Your task to perform on an android device: toggle notifications settings in the gmail app Image 0: 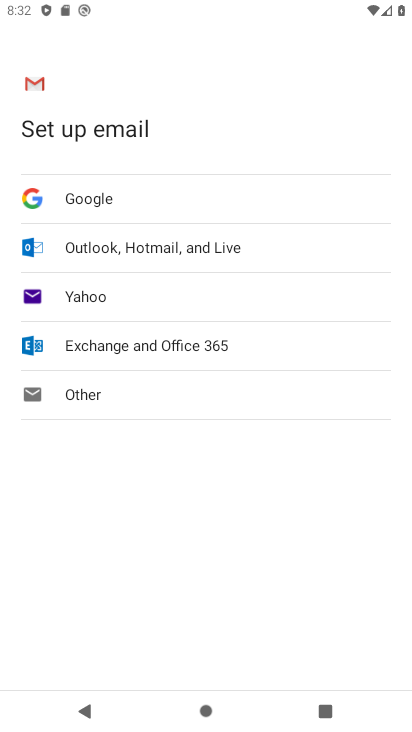
Step 0: press back button
Your task to perform on an android device: toggle notifications settings in the gmail app Image 1: 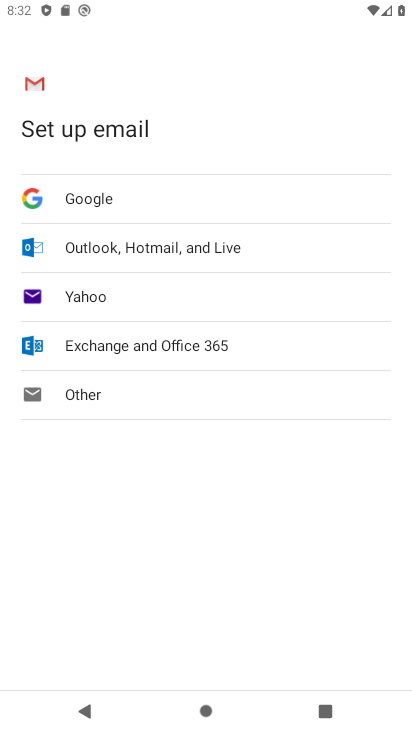
Step 1: press back button
Your task to perform on an android device: toggle notifications settings in the gmail app Image 2: 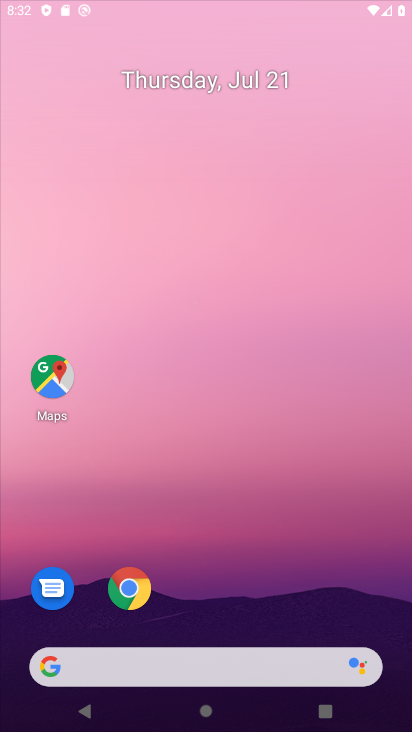
Step 2: press back button
Your task to perform on an android device: toggle notifications settings in the gmail app Image 3: 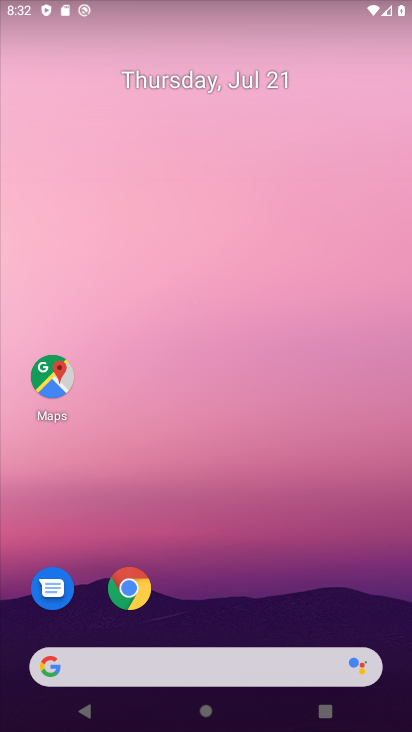
Step 3: drag from (210, 629) to (131, 185)
Your task to perform on an android device: toggle notifications settings in the gmail app Image 4: 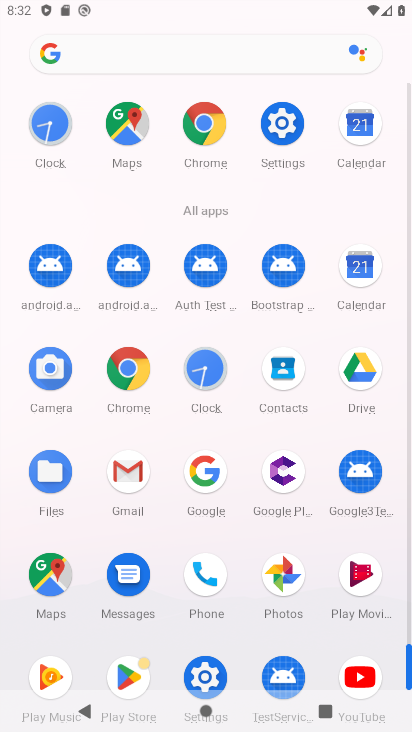
Step 4: click (132, 475)
Your task to perform on an android device: toggle notifications settings in the gmail app Image 5: 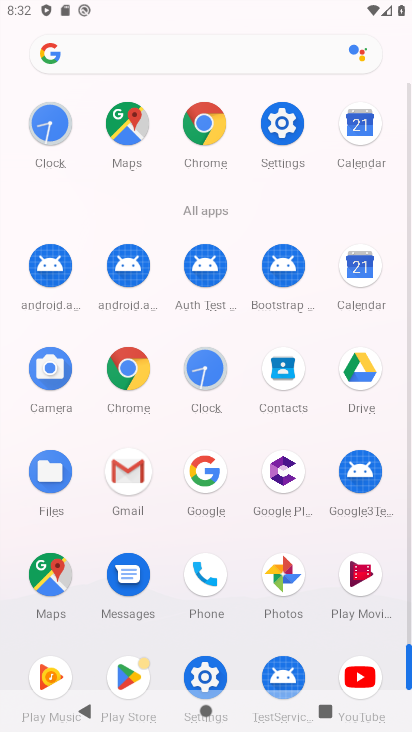
Step 5: click (128, 463)
Your task to perform on an android device: toggle notifications settings in the gmail app Image 6: 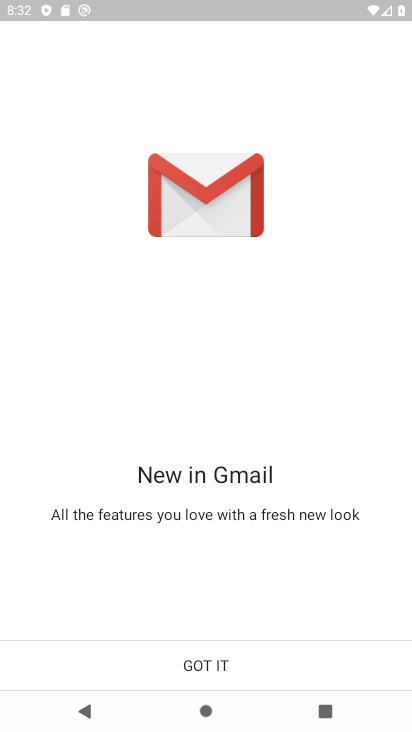
Step 6: click (219, 663)
Your task to perform on an android device: toggle notifications settings in the gmail app Image 7: 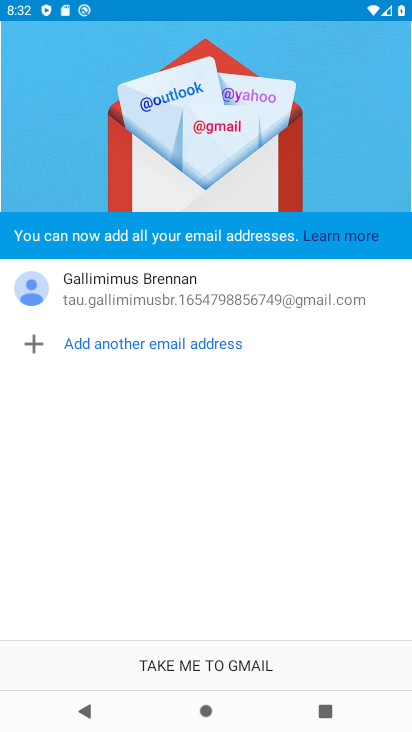
Step 7: click (229, 665)
Your task to perform on an android device: toggle notifications settings in the gmail app Image 8: 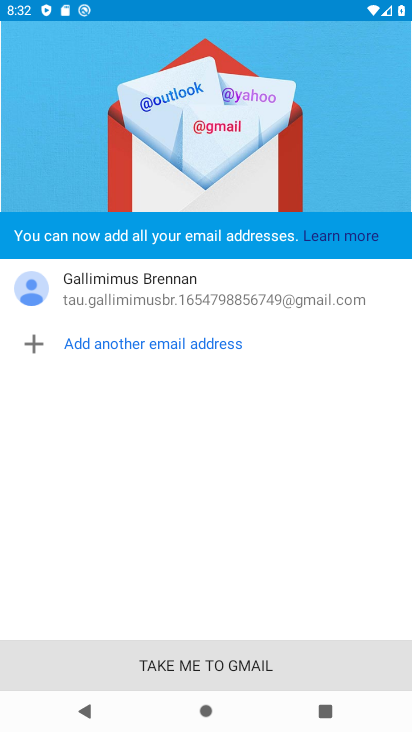
Step 8: click (229, 666)
Your task to perform on an android device: toggle notifications settings in the gmail app Image 9: 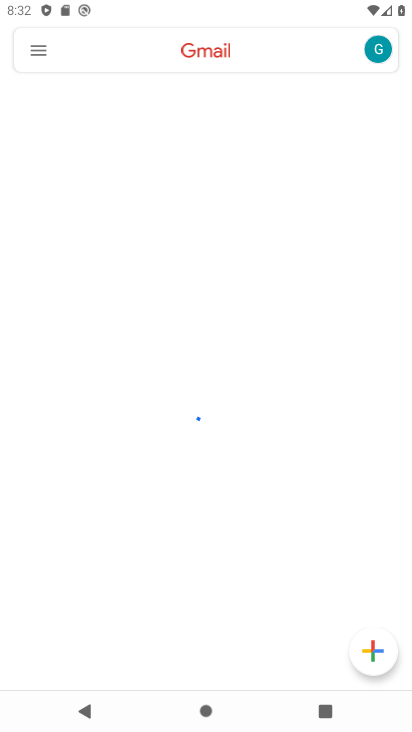
Step 9: drag from (37, 49) to (88, 404)
Your task to perform on an android device: toggle notifications settings in the gmail app Image 10: 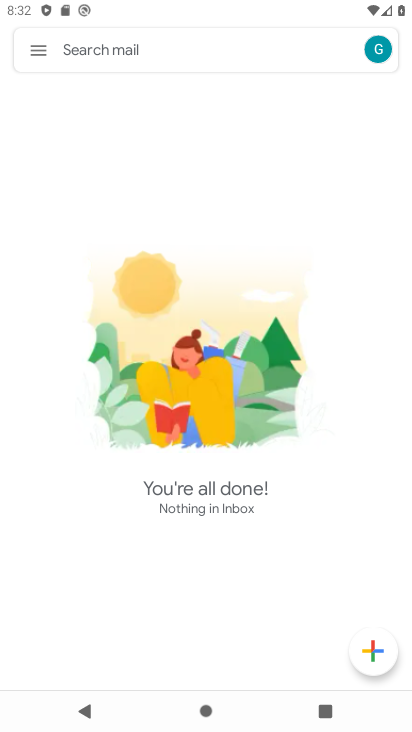
Step 10: click (47, 60)
Your task to perform on an android device: toggle notifications settings in the gmail app Image 11: 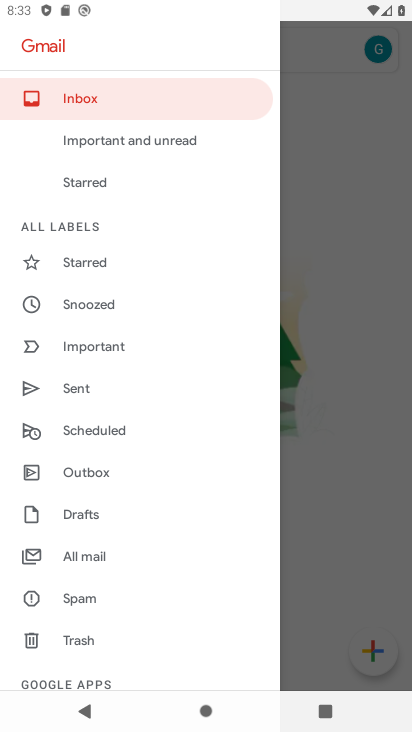
Step 11: drag from (104, 622) to (100, 123)
Your task to perform on an android device: toggle notifications settings in the gmail app Image 12: 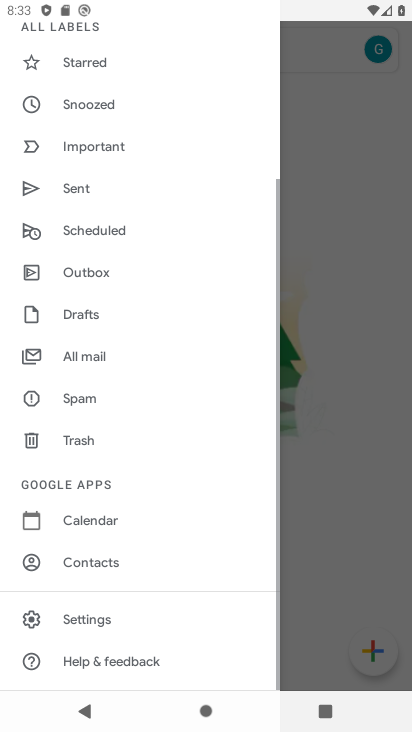
Step 12: drag from (130, 429) to (162, 156)
Your task to perform on an android device: toggle notifications settings in the gmail app Image 13: 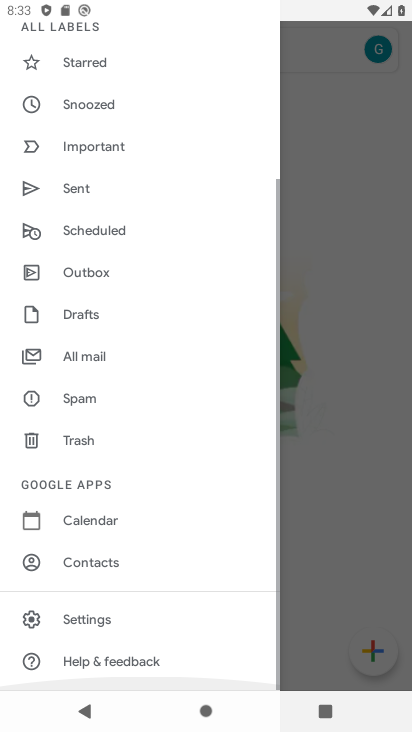
Step 13: drag from (146, 570) to (87, 203)
Your task to perform on an android device: toggle notifications settings in the gmail app Image 14: 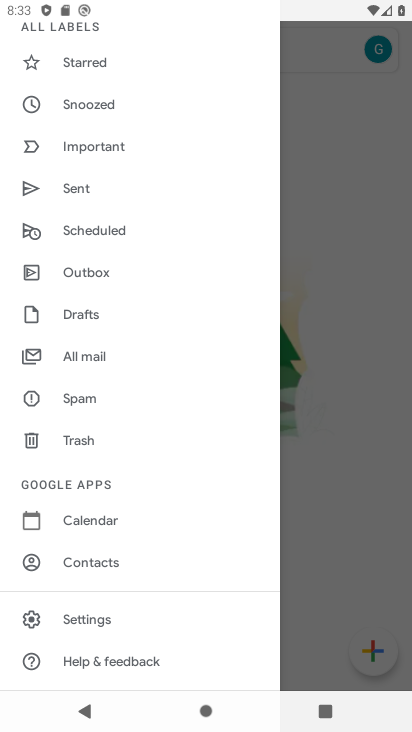
Step 14: click (69, 612)
Your task to perform on an android device: toggle notifications settings in the gmail app Image 15: 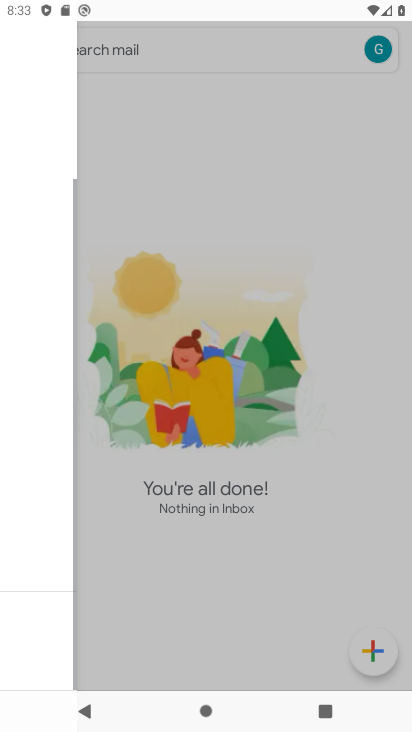
Step 15: click (73, 609)
Your task to perform on an android device: toggle notifications settings in the gmail app Image 16: 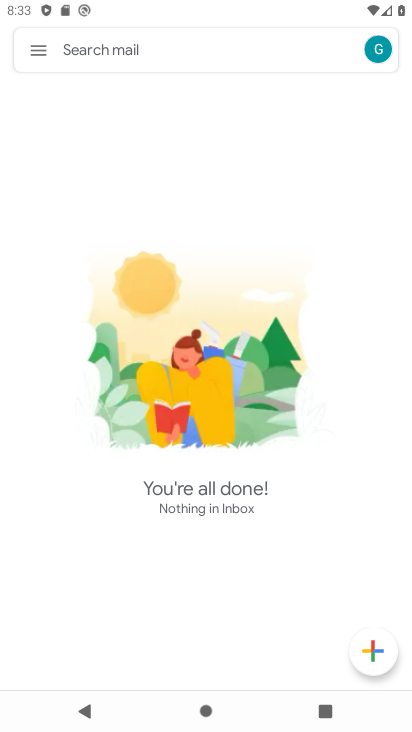
Step 16: click (73, 609)
Your task to perform on an android device: toggle notifications settings in the gmail app Image 17: 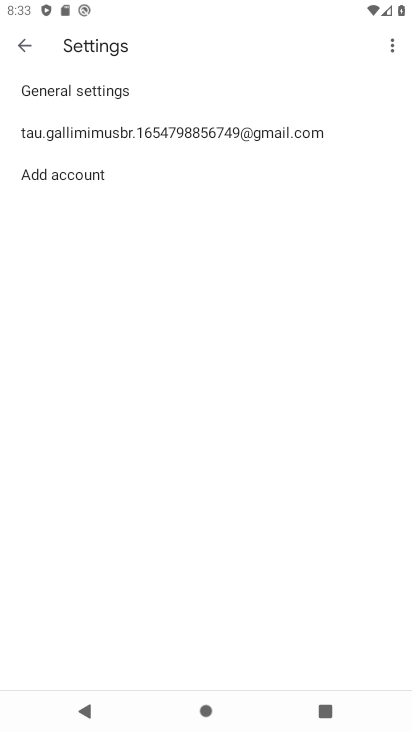
Step 17: click (123, 139)
Your task to perform on an android device: toggle notifications settings in the gmail app Image 18: 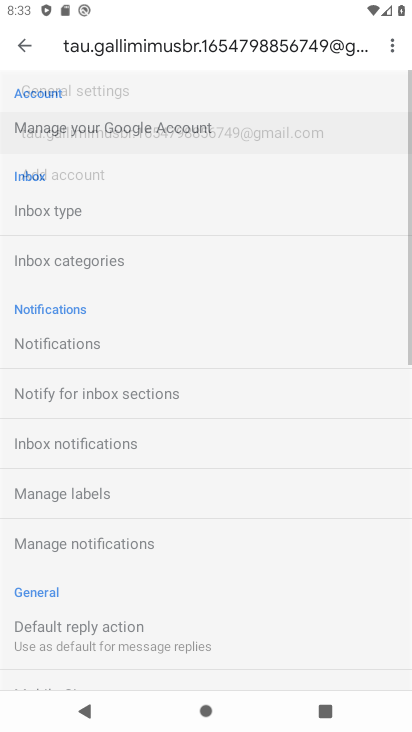
Step 18: click (123, 137)
Your task to perform on an android device: toggle notifications settings in the gmail app Image 19: 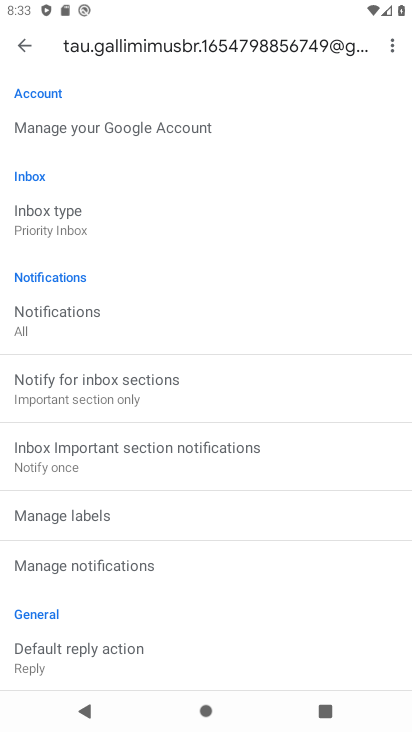
Step 19: drag from (90, 504) to (87, 120)
Your task to perform on an android device: toggle notifications settings in the gmail app Image 20: 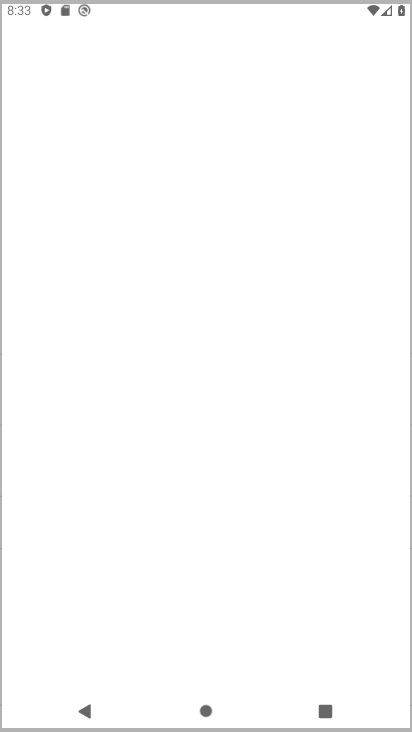
Step 20: drag from (138, 502) to (133, 273)
Your task to perform on an android device: toggle notifications settings in the gmail app Image 21: 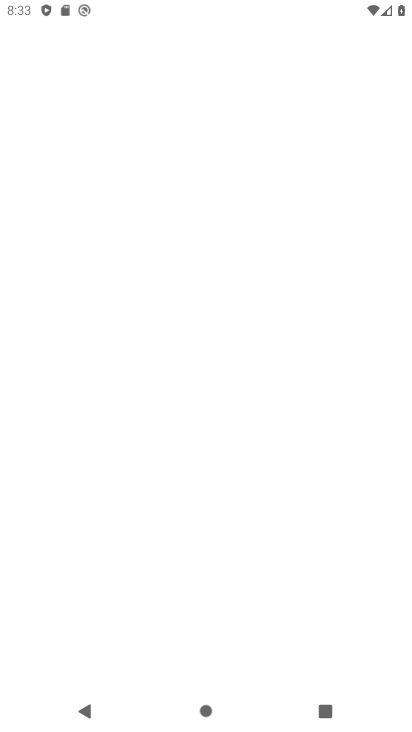
Step 21: drag from (157, 523) to (208, 109)
Your task to perform on an android device: toggle notifications settings in the gmail app Image 22: 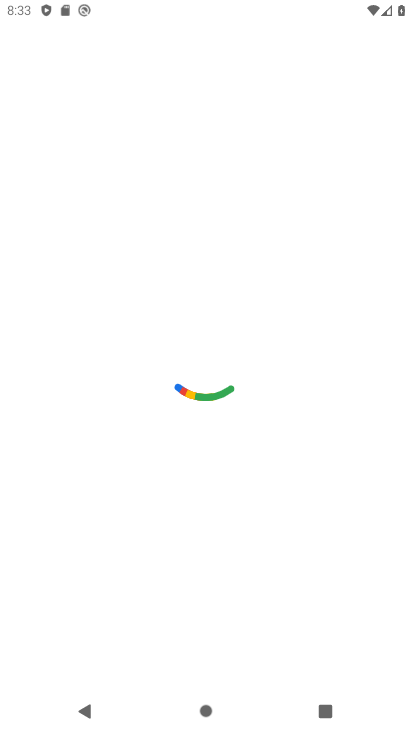
Step 22: press back button
Your task to perform on an android device: toggle notifications settings in the gmail app Image 23: 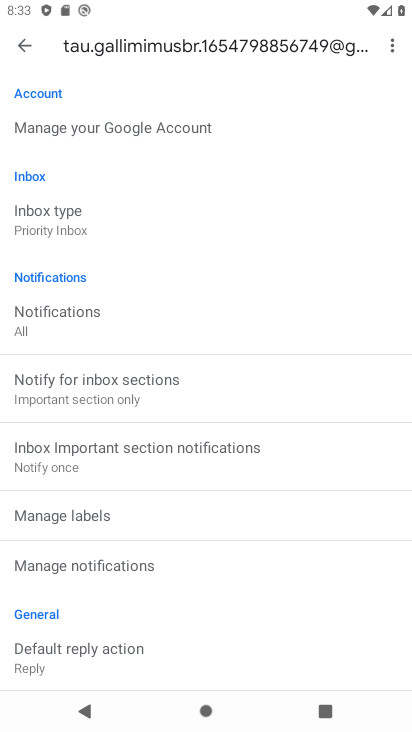
Step 23: click (33, 300)
Your task to perform on an android device: toggle notifications settings in the gmail app Image 24: 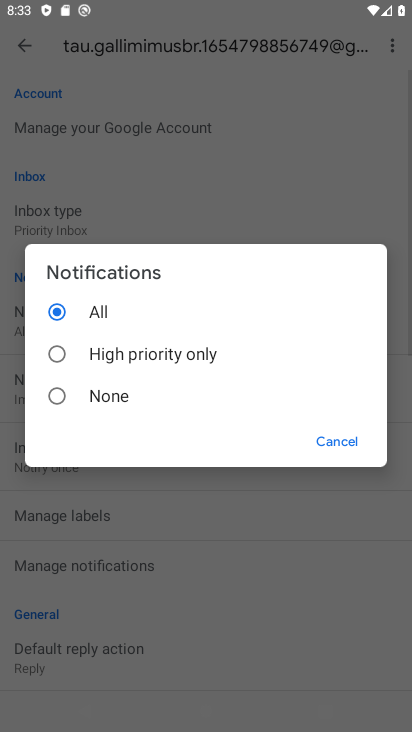
Step 24: click (74, 354)
Your task to perform on an android device: toggle notifications settings in the gmail app Image 25: 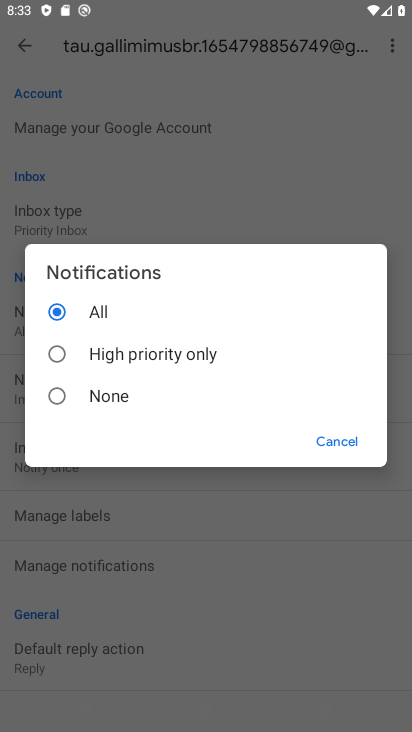
Step 25: click (59, 357)
Your task to perform on an android device: toggle notifications settings in the gmail app Image 26: 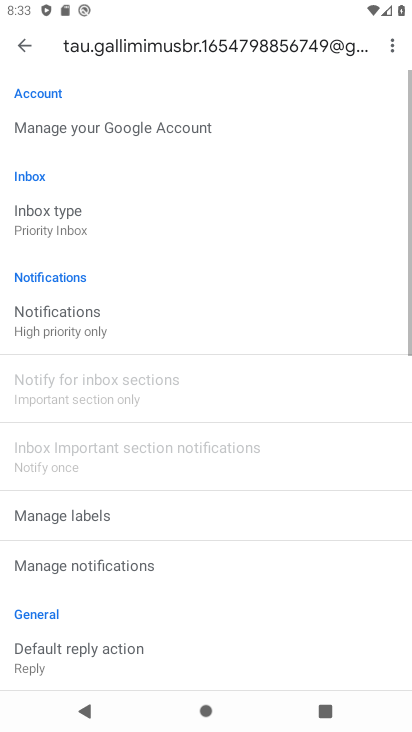
Step 26: click (59, 357)
Your task to perform on an android device: toggle notifications settings in the gmail app Image 27: 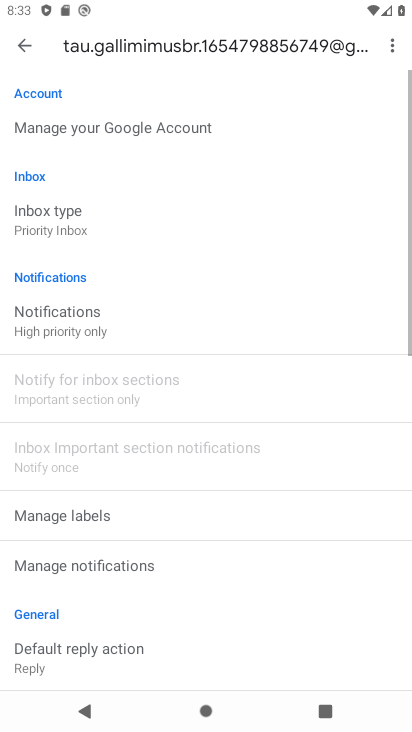
Step 27: task complete